Your task to perform on an android device: Show me recent news Image 0: 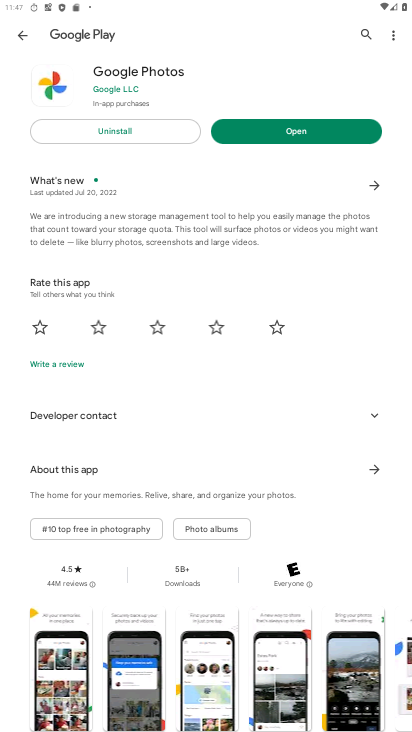
Step 0: press home button
Your task to perform on an android device: Show me recent news Image 1: 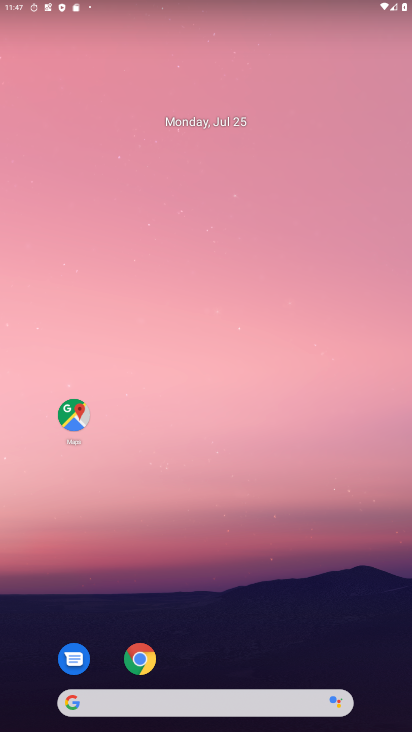
Step 1: click (177, 710)
Your task to perform on an android device: Show me recent news Image 2: 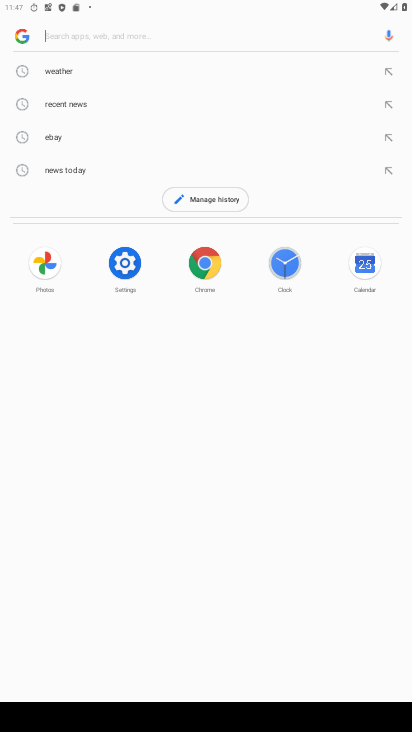
Step 2: click (54, 98)
Your task to perform on an android device: Show me recent news Image 3: 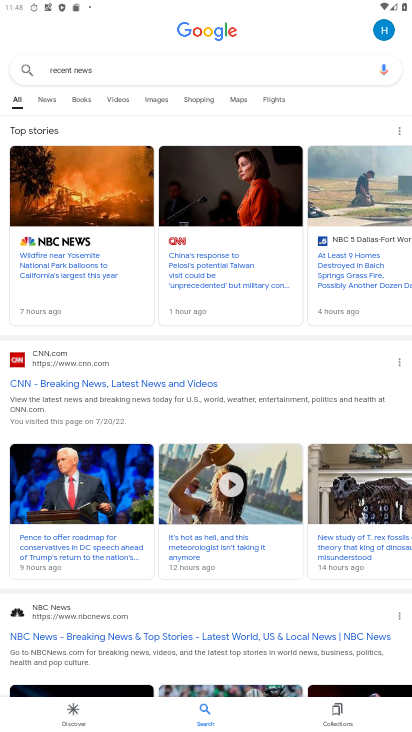
Step 3: task complete